Your task to perform on an android device: change the clock style Image 0: 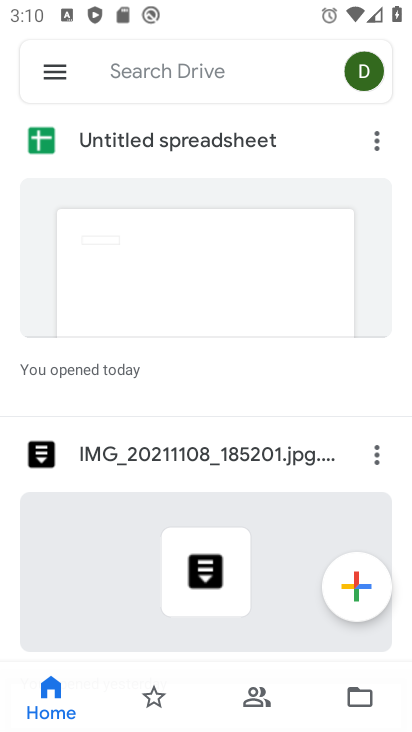
Step 0: press home button
Your task to perform on an android device: change the clock style Image 1: 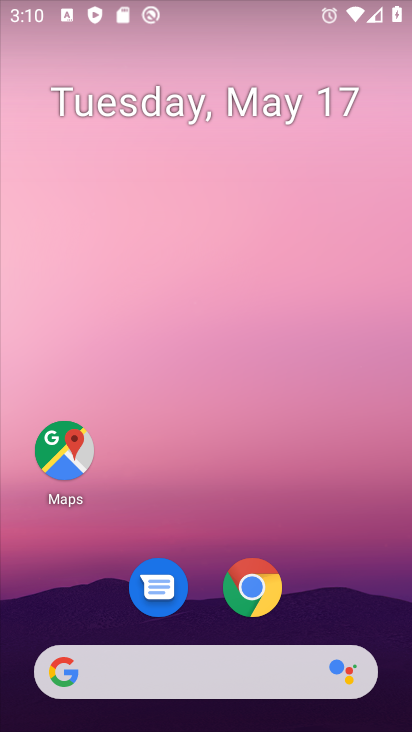
Step 1: drag from (198, 579) to (185, 5)
Your task to perform on an android device: change the clock style Image 2: 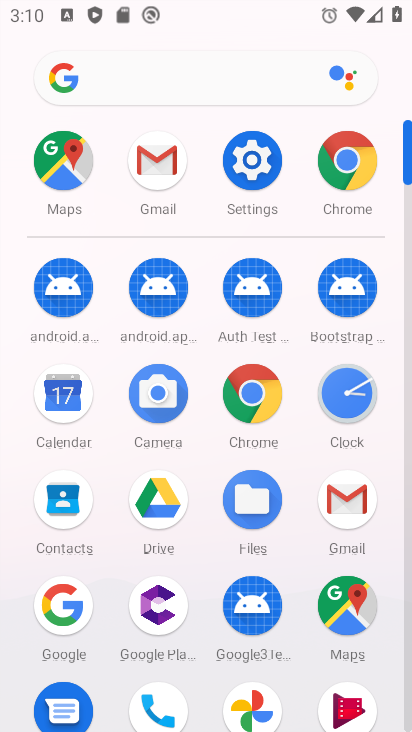
Step 2: click (354, 398)
Your task to perform on an android device: change the clock style Image 3: 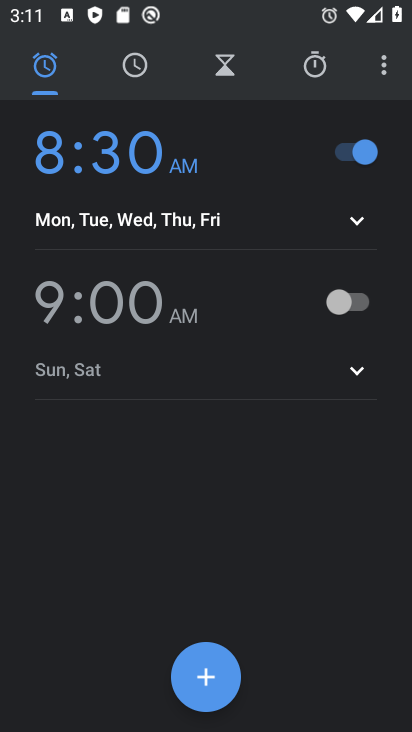
Step 3: click (379, 71)
Your task to perform on an android device: change the clock style Image 4: 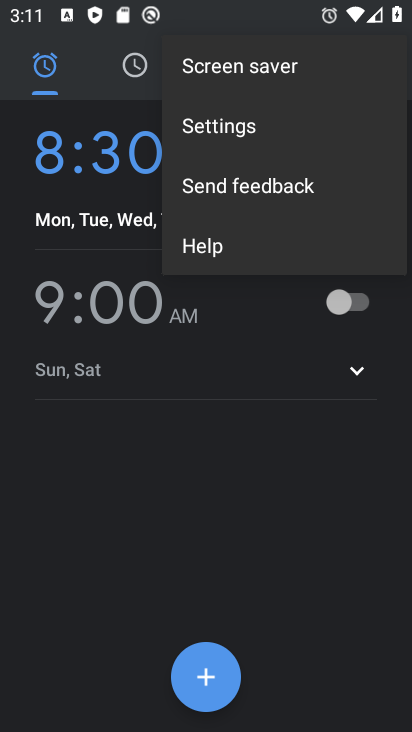
Step 4: click (283, 123)
Your task to perform on an android device: change the clock style Image 5: 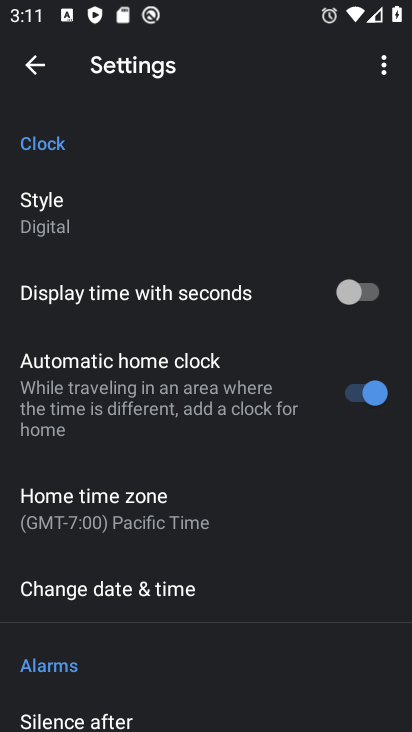
Step 5: click (90, 215)
Your task to perform on an android device: change the clock style Image 6: 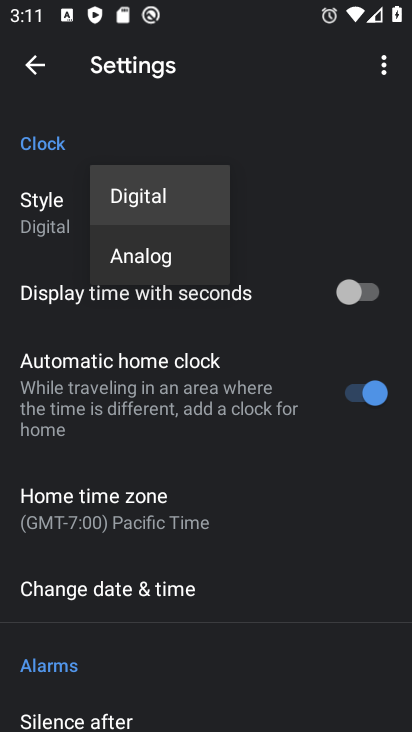
Step 6: click (156, 245)
Your task to perform on an android device: change the clock style Image 7: 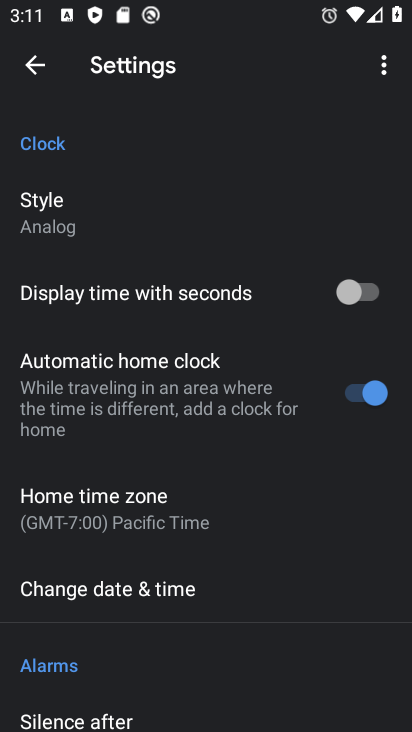
Step 7: task complete